Your task to perform on an android device: turn on the 12-hour format for clock Image 0: 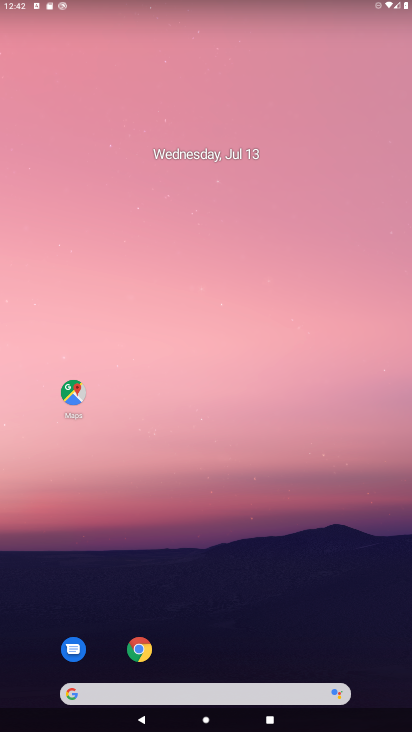
Step 0: drag from (383, 659) to (315, 29)
Your task to perform on an android device: turn on the 12-hour format for clock Image 1: 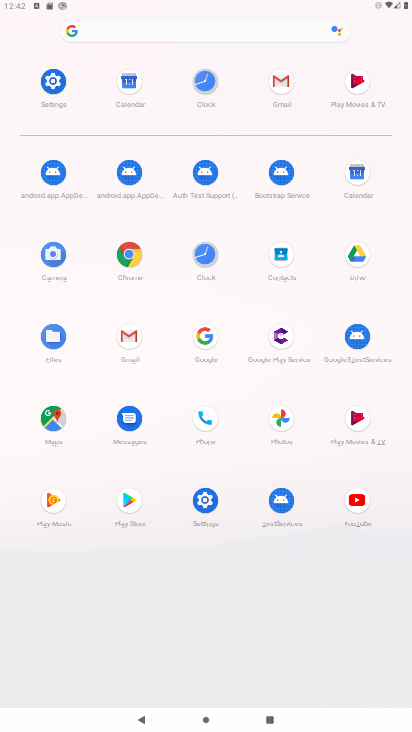
Step 1: click (205, 254)
Your task to perform on an android device: turn on the 12-hour format for clock Image 2: 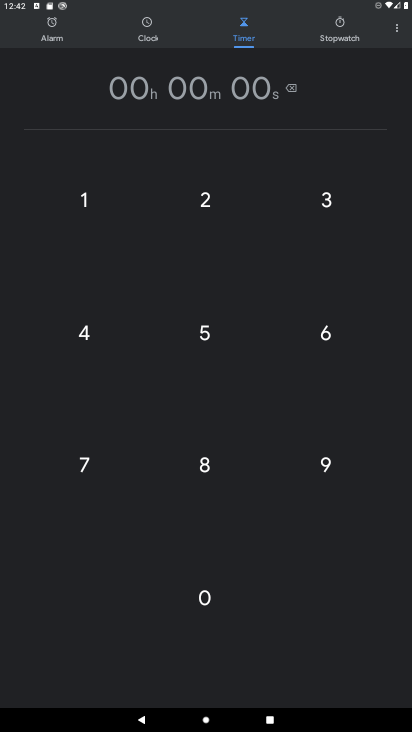
Step 2: click (398, 33)
Your task to perform on an android device: turn on the 12-hour format for clock Image 3: 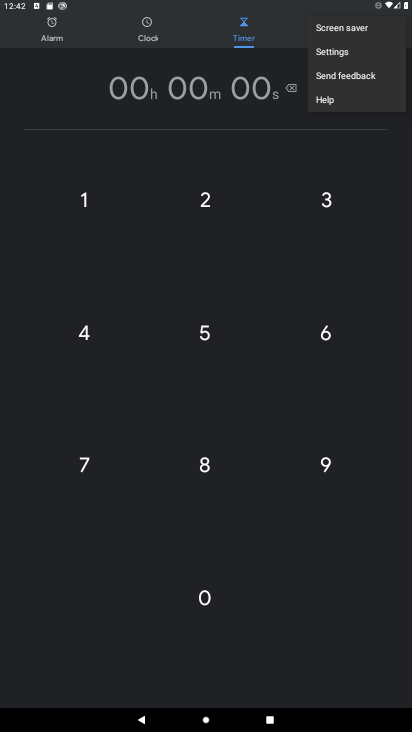
Step 3: click (331, 55)
Your task to perform on an android device: turn on the 12-hour format for clock Image 4: 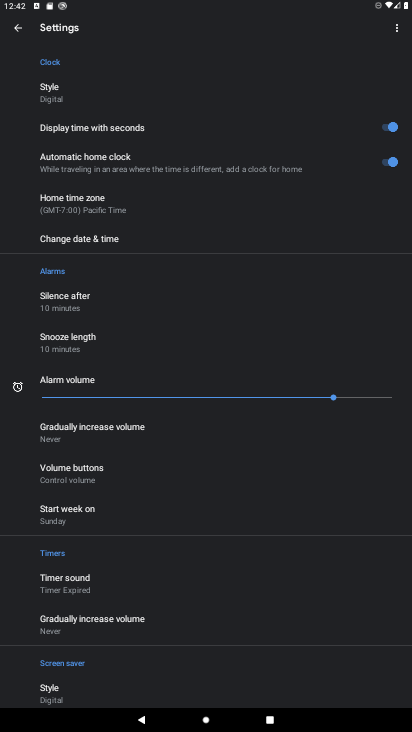
Step 4: click (90, 239)
Your task to perform on an android device: turn on the 12-hour format for clock Image 5: 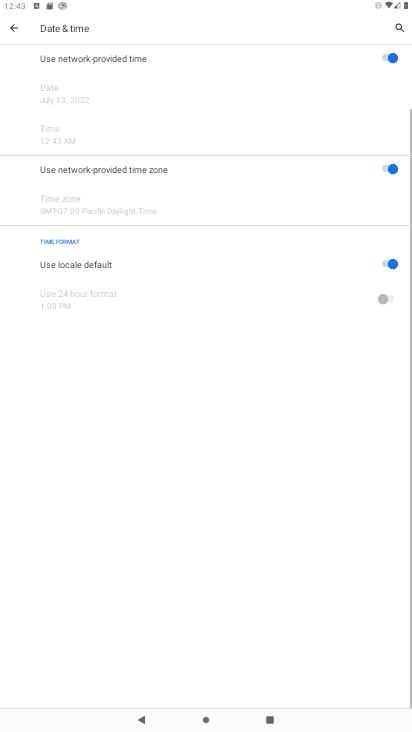
Step 5: task complete